Your task to perform on an android device: turn on the 12-hour format for clock Image 0: 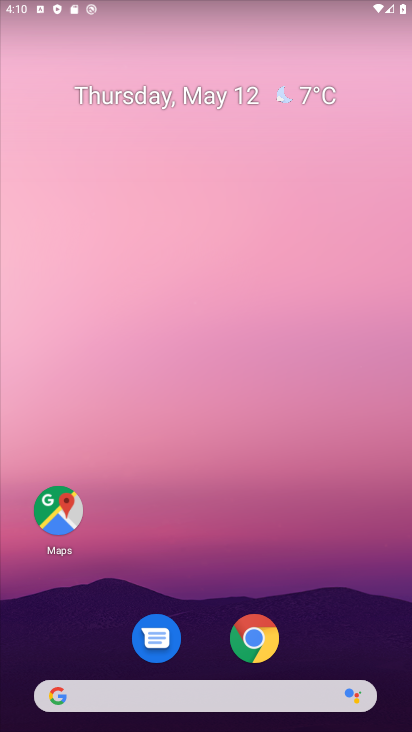
Step 0: drag from (286, 482) to (242, 7)
Your task to perform on an android device: turn on the 12-hour format for clock Image 1: 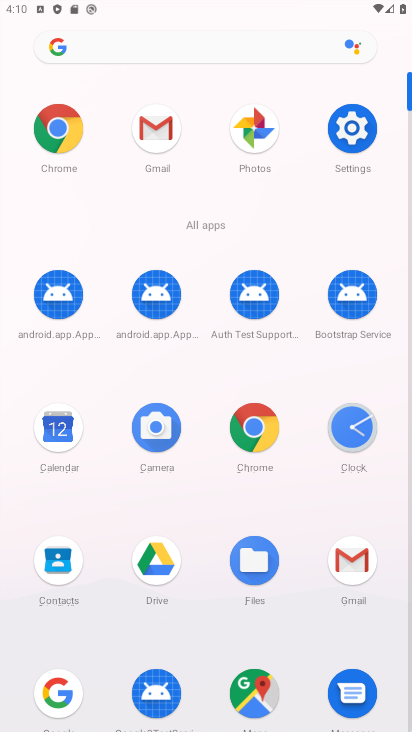
Step 1: click (362, 420)
Your task to perform on an android device: turn on the 12-hour format for clock Image 2: 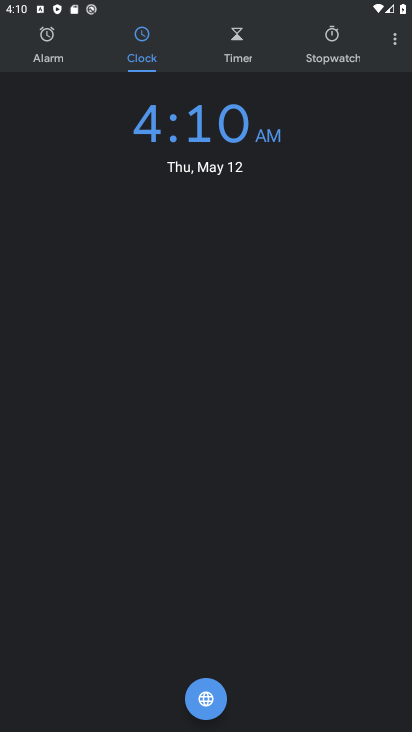
Step 2: click (391, 40)
Your task to perform on an android device: turn on the 12-hour format for clock Image 3: 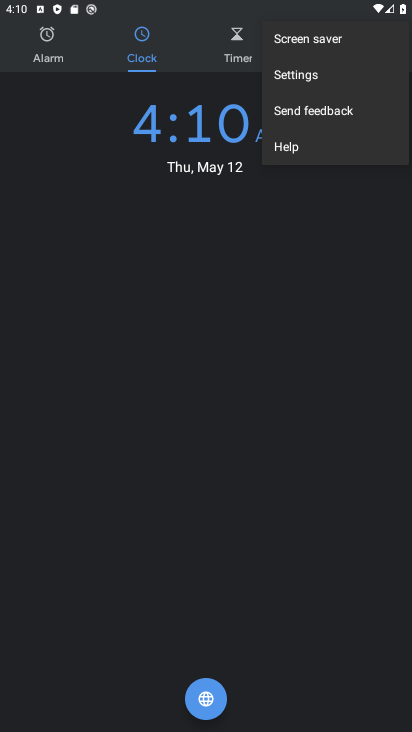
Step 3: click (319, 77)
Your task to perform on an android device: turn on the 12-hour format for clock Image 4: 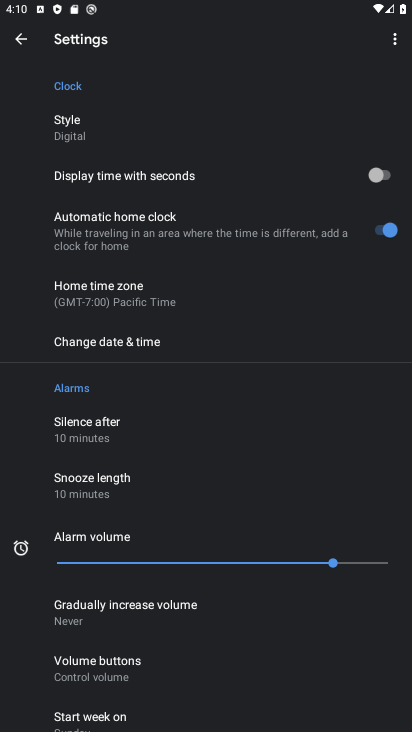
Step 4: click (170, 335)
Your task to perform on an android device: turn on the 12-hour format for clock Image 5: 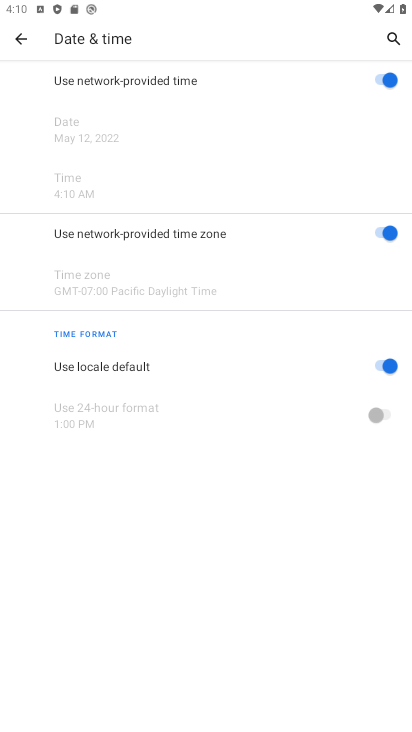
Step 5: task complete